Your task to perform on an android device: Open eBay Image 0: 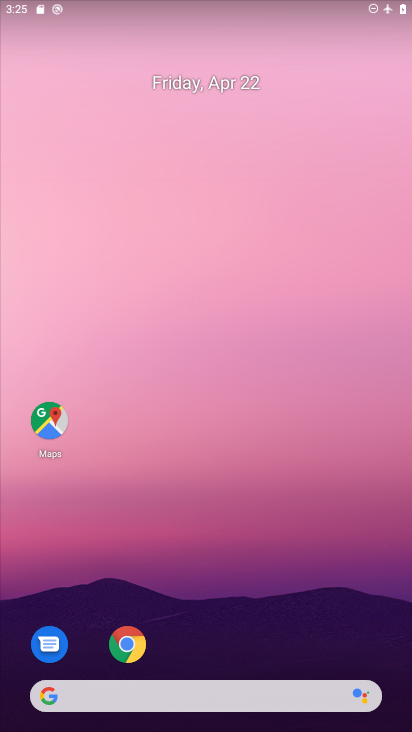
Step 0: click (288, 99)
Your task to perform on an android device: Open eBay Image 1: 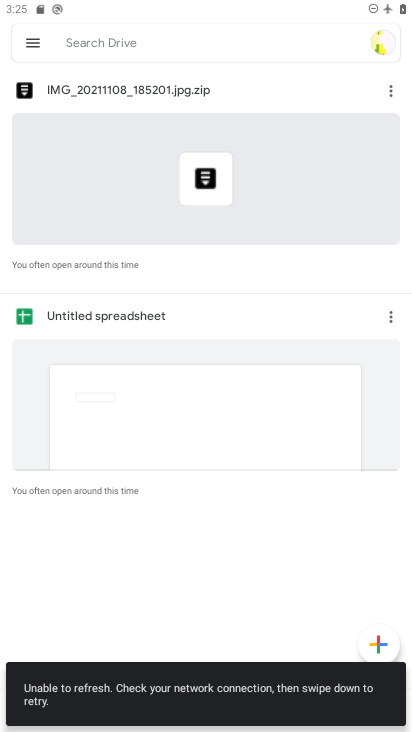
Step 1: press home button
Your task to perform on an android device: Open eBay Image 2: 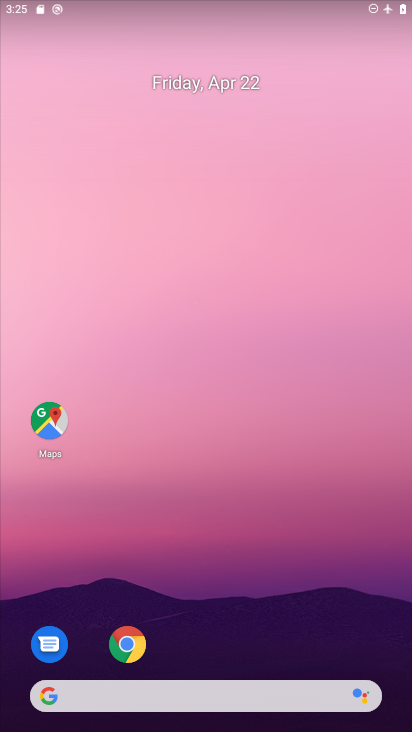
Step 2: drag from (314, 498) to (291, 128)
Your task to perform on an android device: Open eBay Image 3: 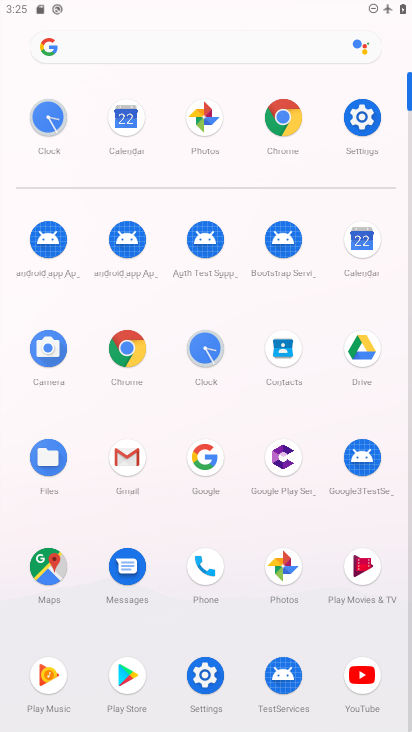
Step 3: click (127, 347)
Your task to perform on an android device: Open eBay Image 4: 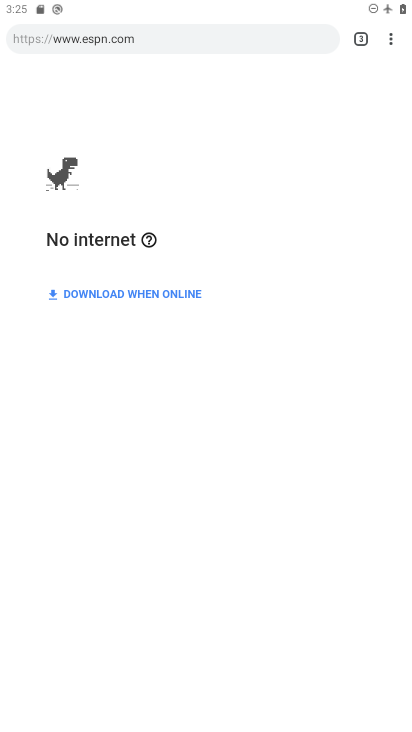
Step 4: click (166, 33)
Your task to perform on an android device: Open eBay Image 5: 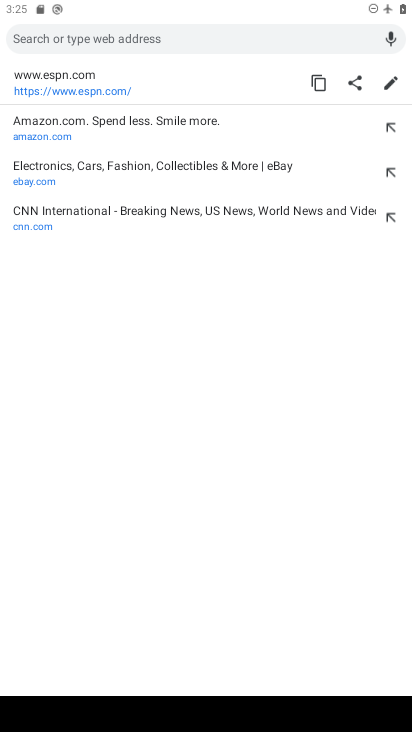
Step 5: click (35, 180)
Your task to perform on an android device: Open eBay Image 6: 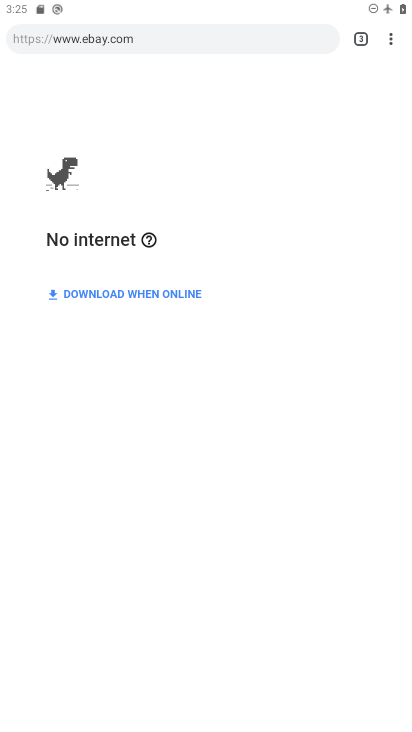
Step 6: task complete